Your task to perform on an android device: Open ESPN.com Image 0: 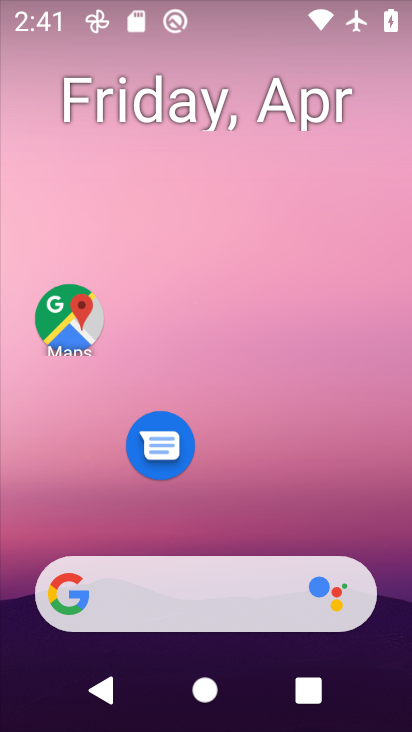
Step 0: drag from (243, 518) to (259, 146)
Your task to perform on an android device: Open ESPN.com Image 1: 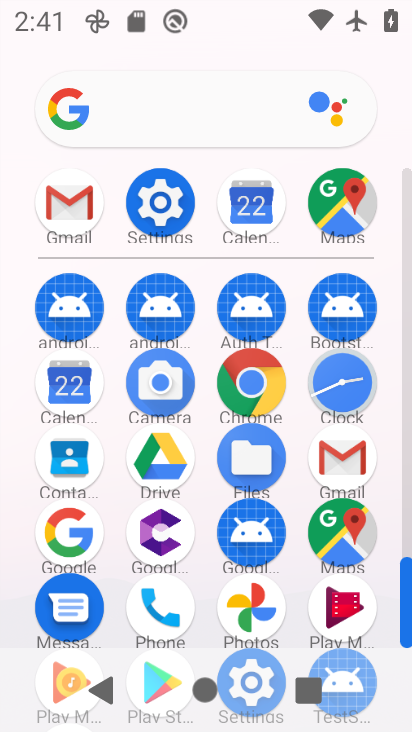
Step 1: click (263, 378)
Your task to perform on an android device: Open ESPN.com Image 2: 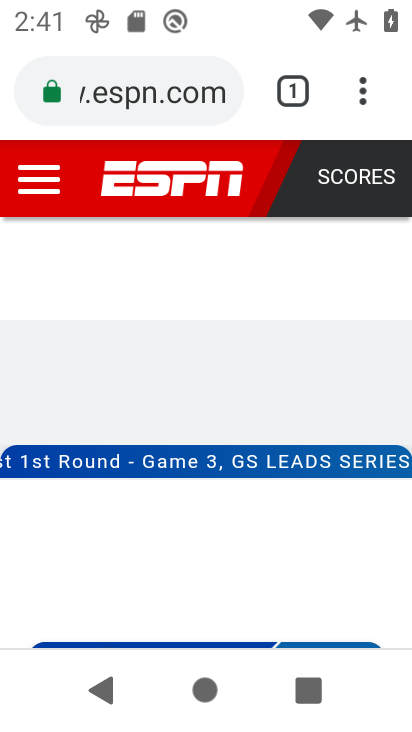
Step 2: task complete